Your task to perform on an android device: all mails in gmail Image 0: 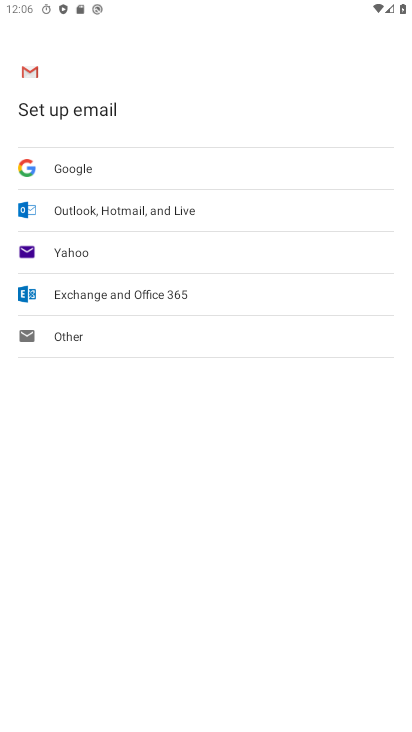
Step 0: press home button
Your task to perform on an android device: all mails in gmail Image 1: 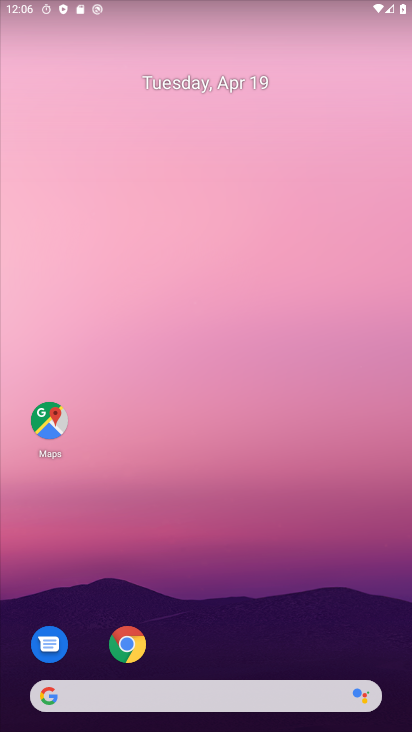
Step 1: drag from (247, 497) to (278, 185)
Your task to perform on an android device: all mails in gmail Image 2: 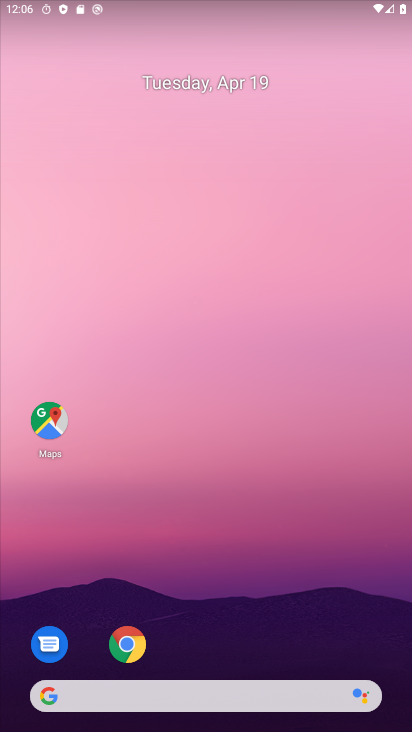
Step 2: drag from (232, 620) to (216, 141)
Your task to perform on an android device: all mails in gmail Image 3: 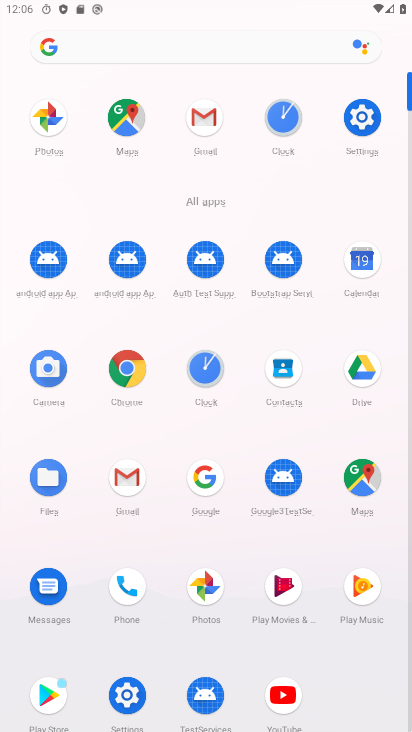
Step 3: click (205, 122)
Your task to perform on an android device: all mails in gmail Image 4: 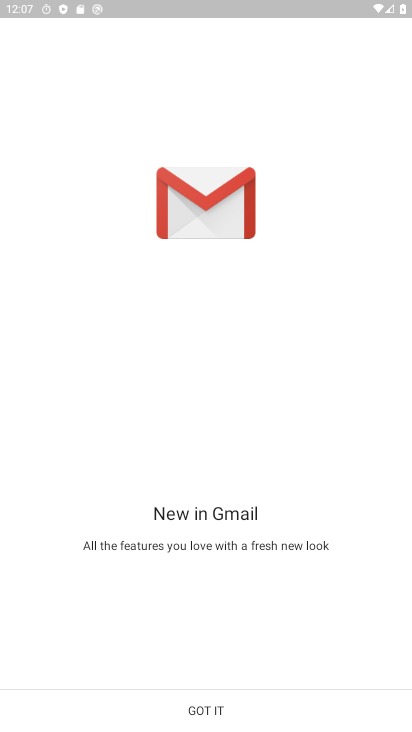
Step 4: click (201, 704)
Your task to perform on an android device: all mails in gmail Image 5: 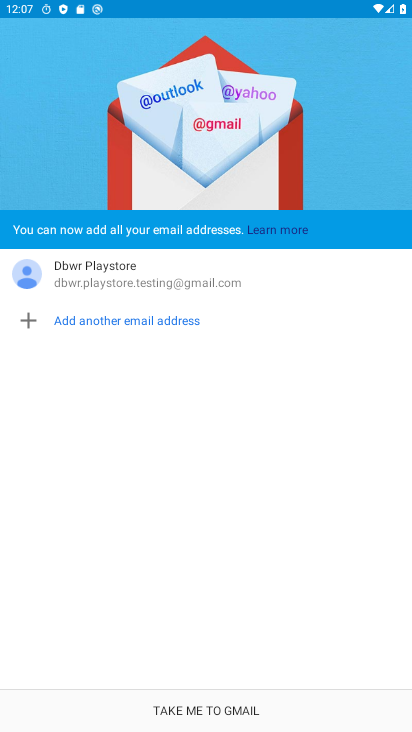
Step 5: click (201, 704)
Your task to perform on an android device: all mails in gmail Image 6: 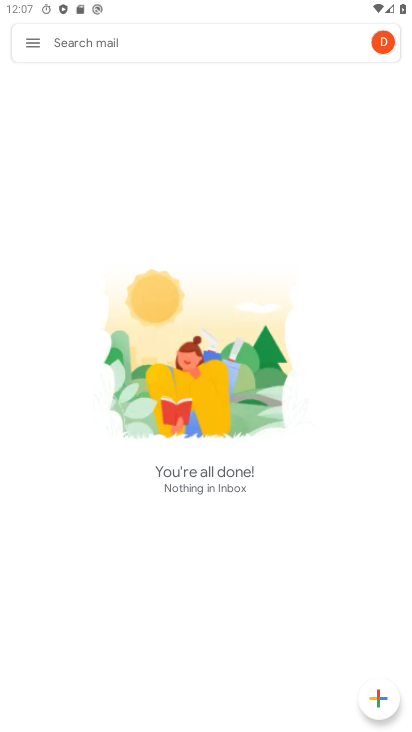
Step 6: click (35, 52)
Your task to perform on an android device: all mails in gmail Image 7: 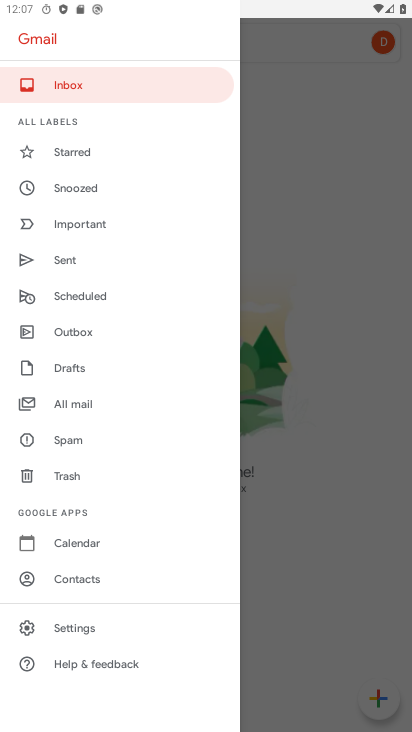
Step 7: click (90, 402)
Your task to perform on an android device: all mails in gmail Image 8: 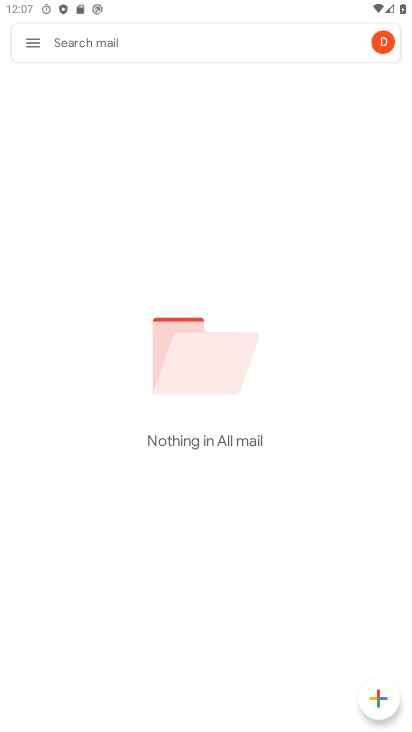
Step 8: task complete